Your task to perform on an android device: View the shopping cart on ebay. Image 0: 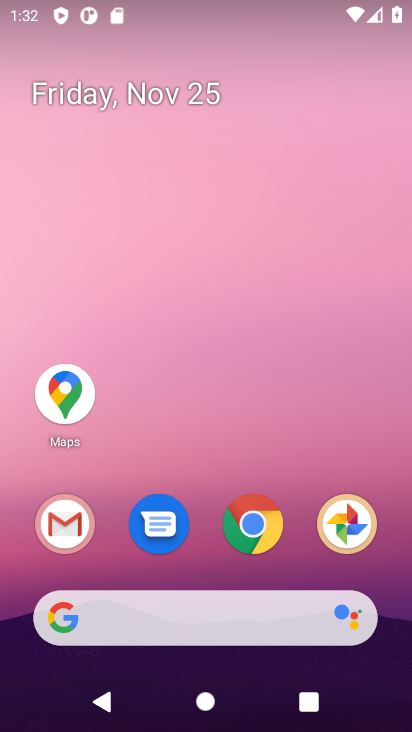
Step 0: click (252, 527)
Your task to perform on an android device: View the shopping cart on ebay. Image 1: 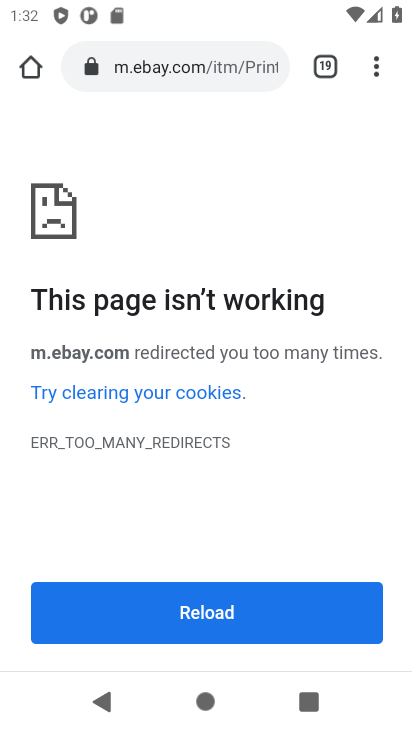
Step 1: click (191, 72)
Your task to perform on an android device: View the shopping cart on ebay. Image 2: 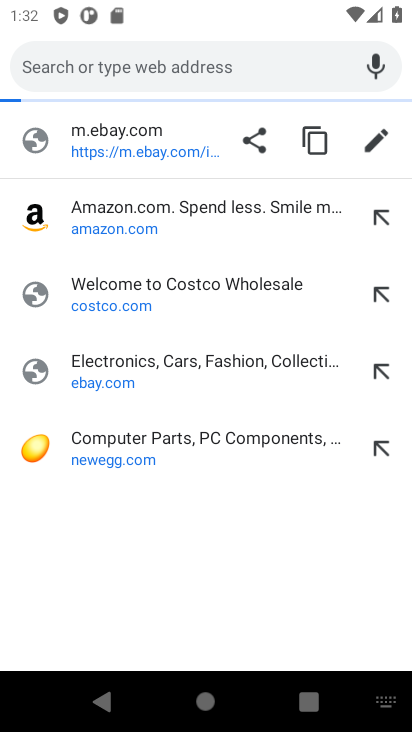
Step 2: click (93, 372)
Your task to perform on an android device: View the shopping cart on ebay. Image 3: 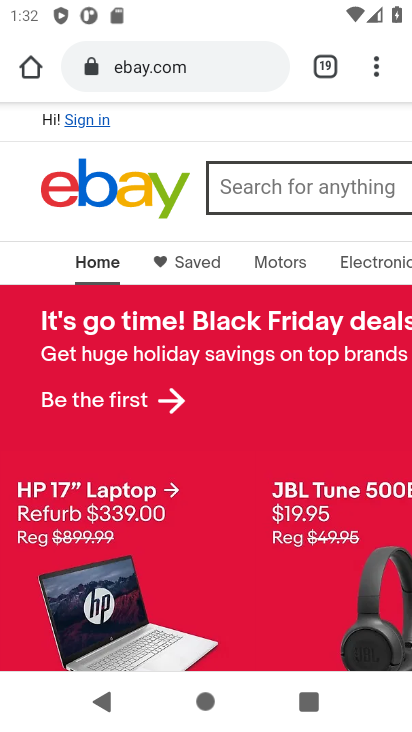
Step 3: drag from (367, 148) to (8, 157)
Your task to perform on an android device: View the shopping cart on ebay. Image 4: 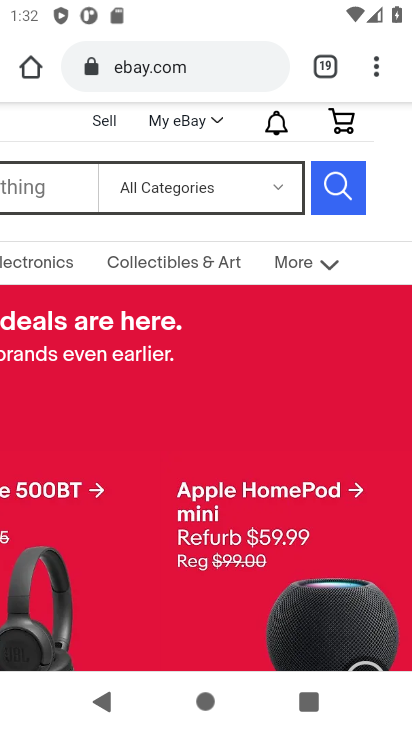
Step 4: click (348, 124)
Your task to perform on an android device: View the shopping cart on ebay. Image 5: 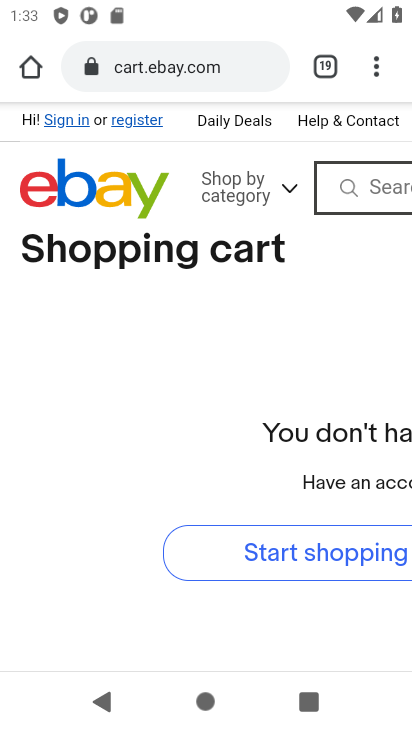
Step 5: task complete